Your task to perform on an android device: Open Chrome and go to the settings page Image 0: 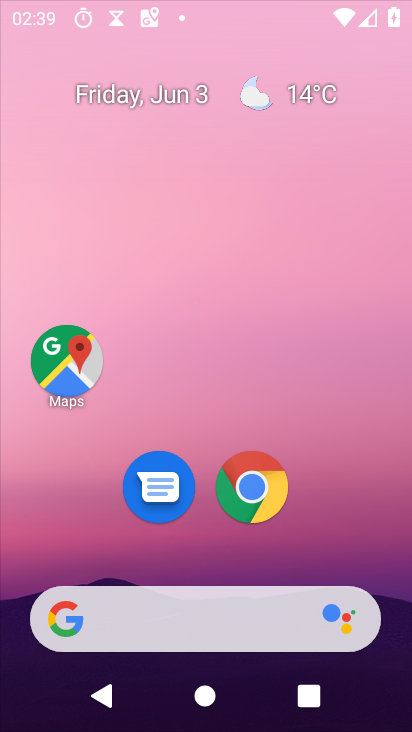
Step 0: press home button
Your task to perform on an android device: Open Chrome and go to the settings page Image 1: 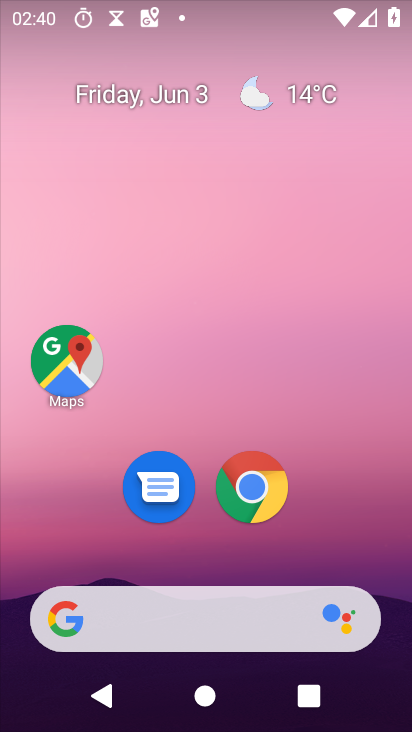
Step 1: click (282, 499)
Your task to perform on an android device: Open Chrome and go to the settings page Image 2: 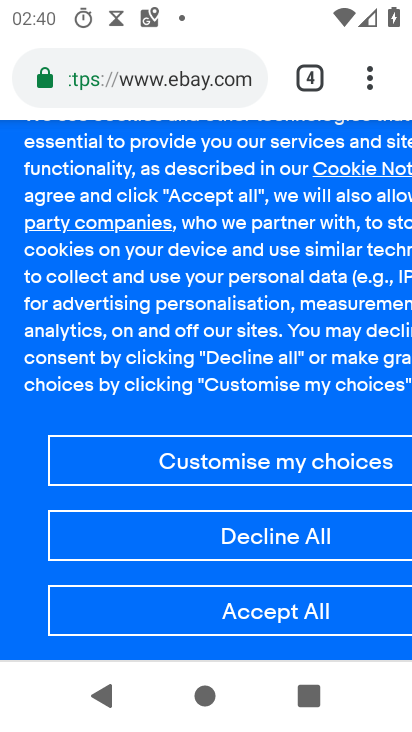
Step 2: click (365, 74)
Your task to perform on an android device: Open Chrome and go to the settings page Image 3: 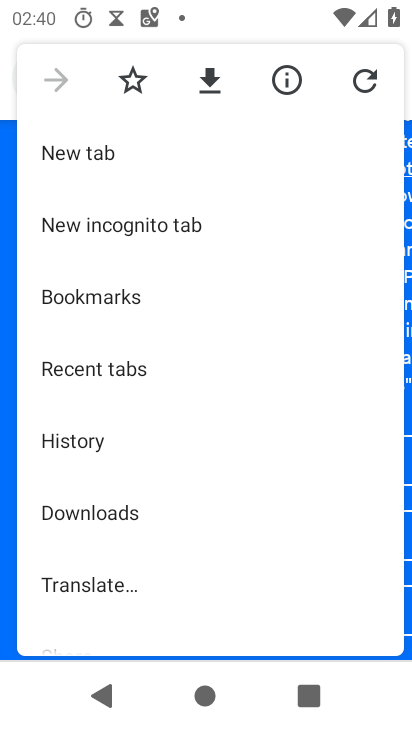
Step 3: drag from (257, 514) to (186, 93)
Your task to perform on an android device: Open Chrome and go to the settings page Image 4: 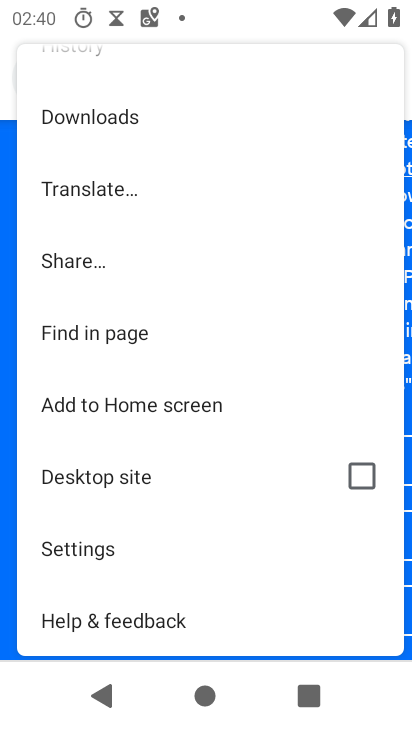
Step 4: click (136, 613)
Your task to perform on an android device: Open Chrome and go to the settings page Image 5: 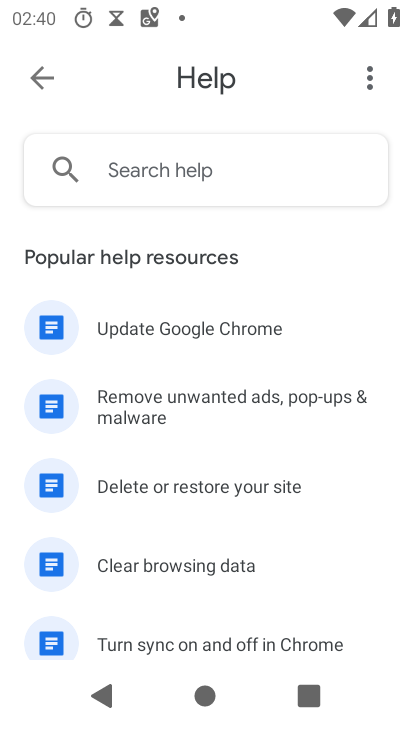
Step 5: task complete